Your task to perform on an android device: Open Maps and search for coffee Image 0: 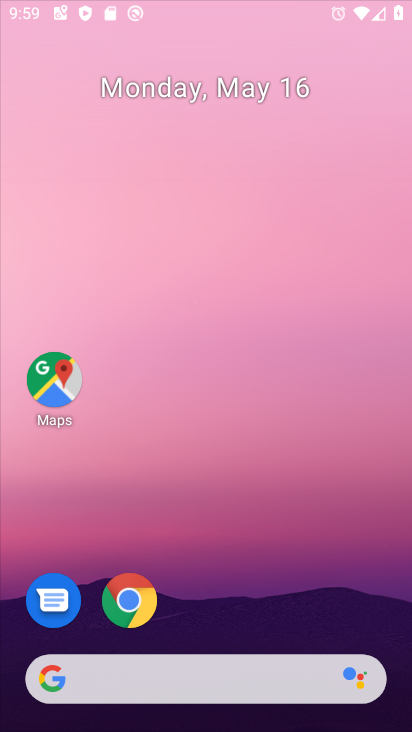
Step 0: click (352, 103)
Your task to perform on an android device: Open Maps and search for coffee Image 1: 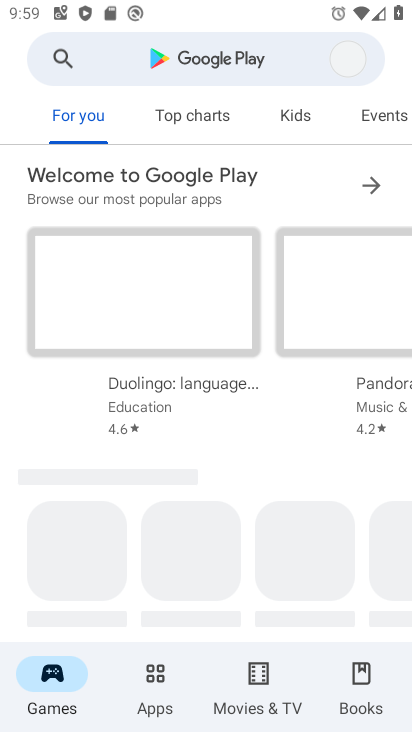
Step 1: drag from (201, 602) to (229, 111)
Your task to perform on an android device: Open Maps and search for coffee Image 2: 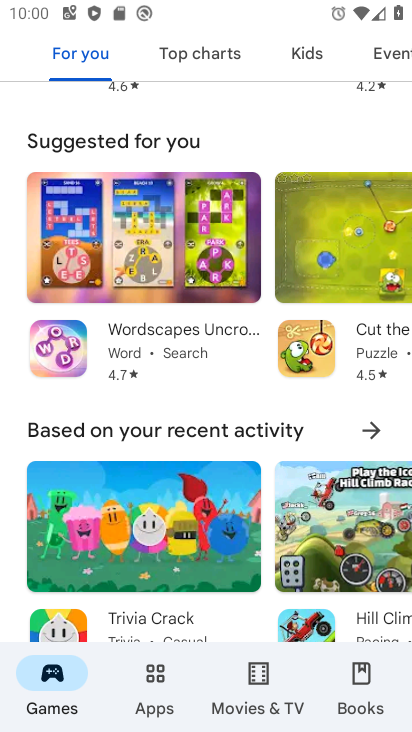
Step 2: press home button
Your task to perform on an android device: Open Maps and search for coffee Image 3: 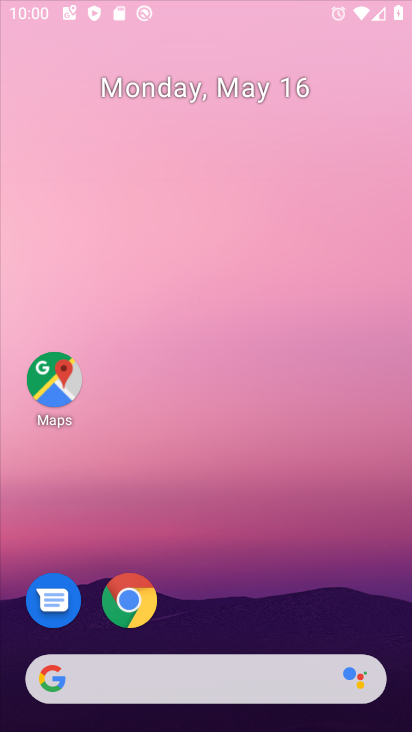
Step 3: drag from (217, 579) to (409, 63)
Your task to perform on an android device: Open Maps and search for coffee Image 4: 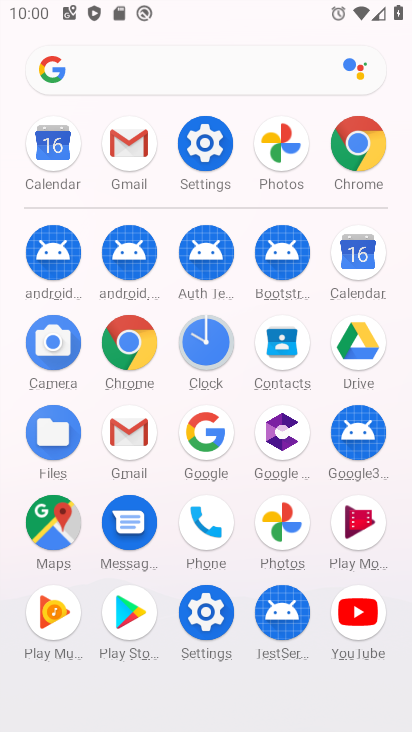
Step 4: click (53, 502)
Your task to perform on an android device: Open Maps and search for coffee Image 5: 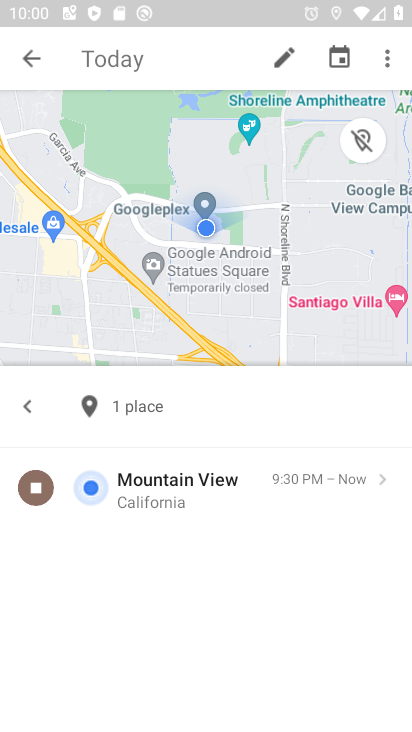
Step 5: drag from (224, 525) to (252, 268)
Your task to perform on an android device: Open Maps and search for coffee Image 6: 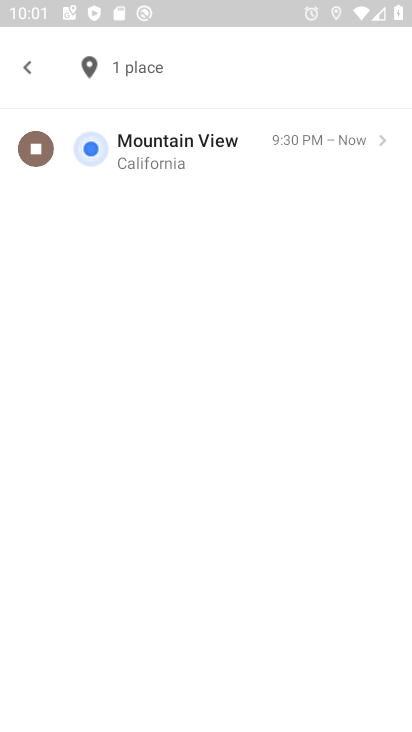
Step 6: click (12, 59)
Your task to perform on an android device: Open Maps and search for coffee Image 7: 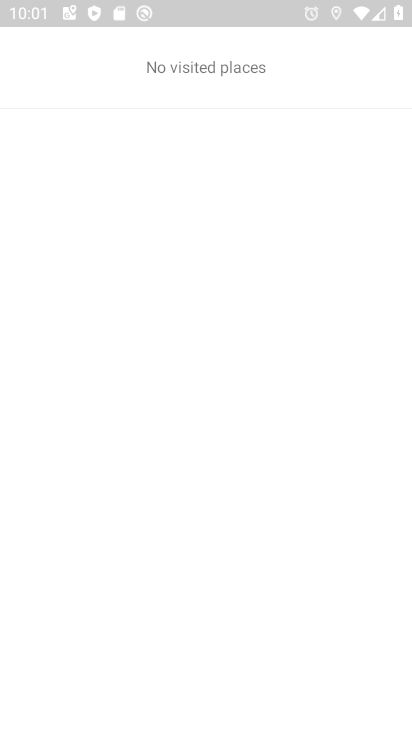
Step 7: drag from (186, 394) to (317, 171)
Your task to perform on an android device: Open Maps and search for coffee Image 8: 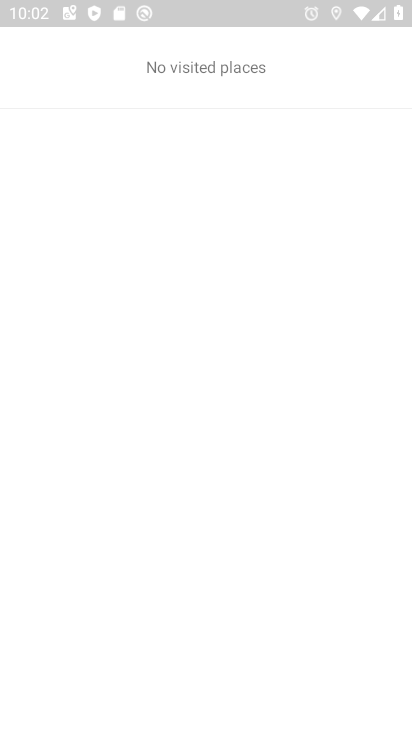
Step 8: drag from (257, 474) to (262, 89)
Your task to perform on an android device: Open Maps and search for coffee Image 9: 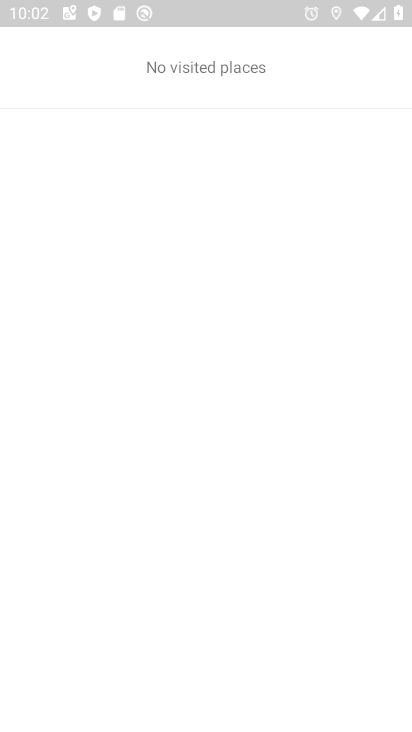
Step 9: click (258, 46)
Your task to perform on an android device: Open Maps and search for coffee Image 10: 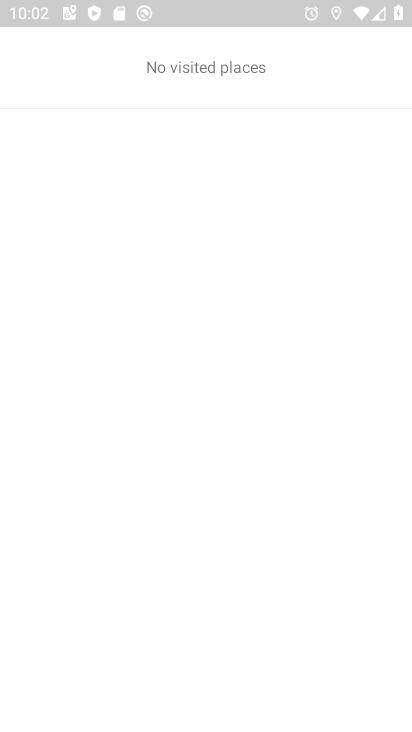
Step 10: click (258, 46)
Your task to perform on an android device: Open Maps and search for coffee Image 11: 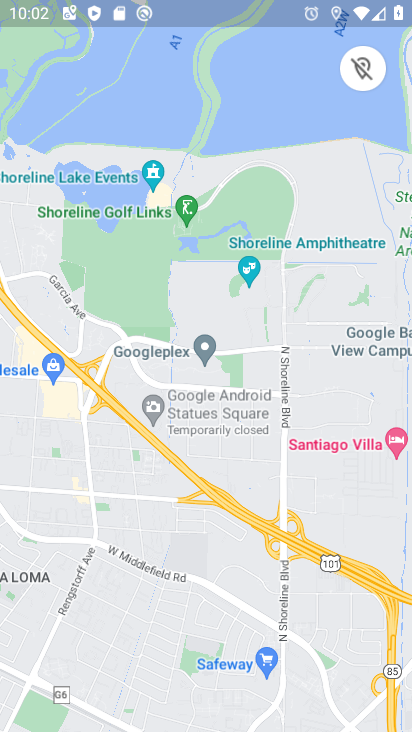
Step 11: drag from (234, 425) to (263, 40)
Your task to perform on an android device: Open Maps and search for coffee Image 12: 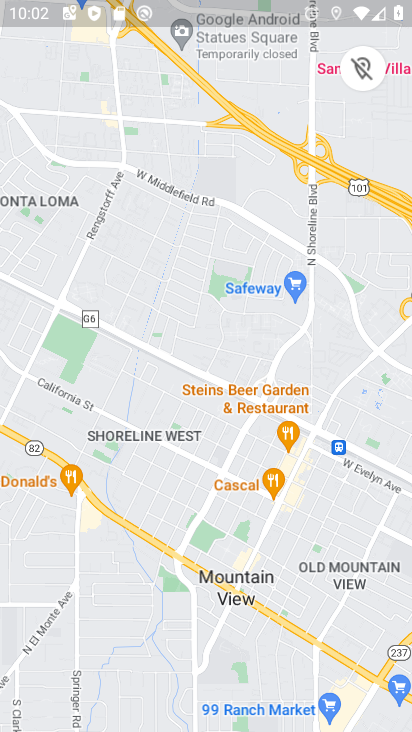
Step 12: drag from (169, 224) to (320, 661)
Your task to perform on an android device: Open Maps and search for coffee Image 13: 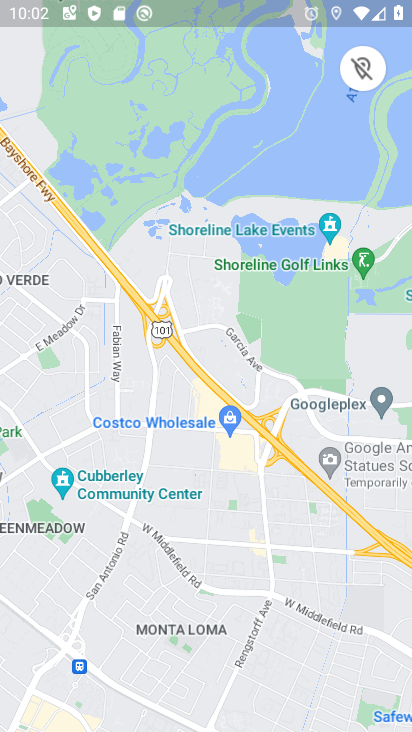
Step 13: press back button
Your task to perform on an android device: Open Maps and search for coffee Image 14: 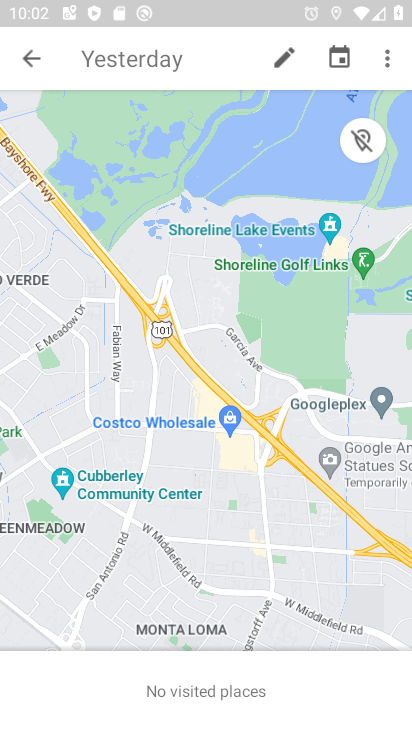
Step 14: press back button
Your task to perform on an android device: Open Maps and search for coffee Image 15: 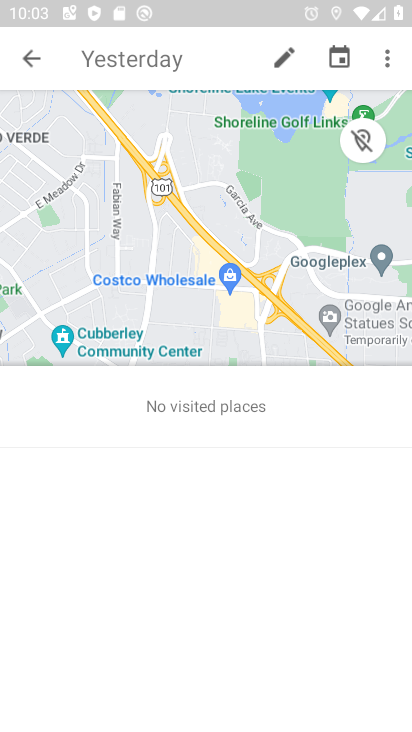
Step 15: drag from (260, 678) to (348, 359)
Your task to perform on an android device: Open Maps and search for coffee Image 16: 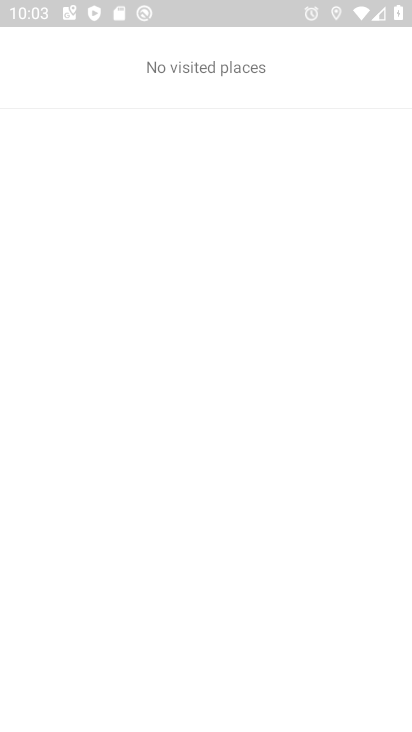
Step 16: click (37, 61)
Your task to perform on an android device: Open Maps and search for coffee Image 17: 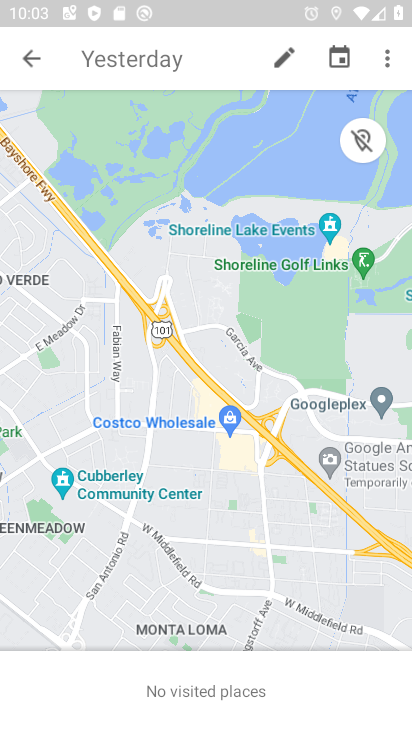
Step 17: click (28, 49)
Your task to perform on an android device: Open Maps and search for coffee Image 18: 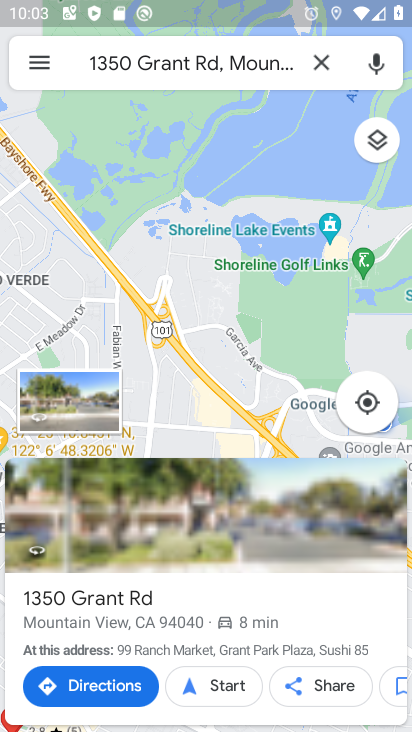
Step 18: click (322, 59)
Your task to perform on an android device: Open Maps and search for coffee Image 19: 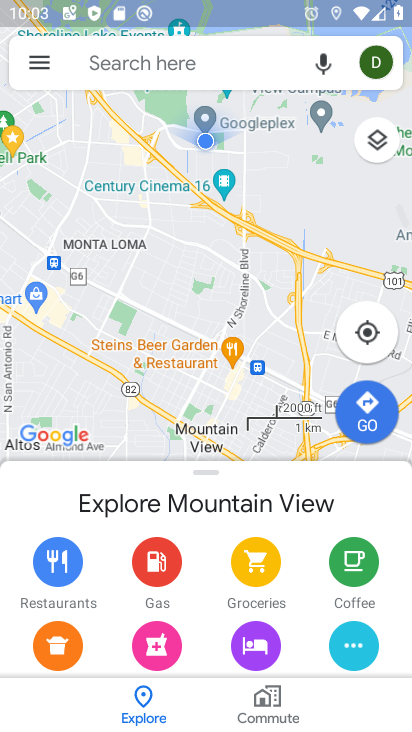
Step 19: click (186, 55)
Your task to perform on an android device: Open Maps and search for coffee Image 20: 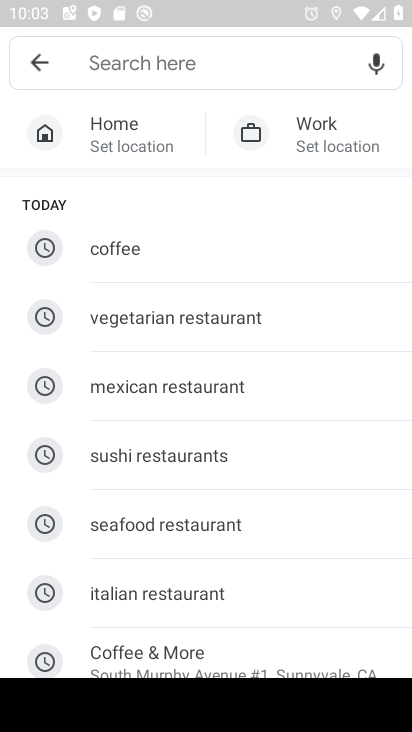
Step 20: click (189, 233)
Your task to perform on an android device: Open Maps and search for coffee Image 21: 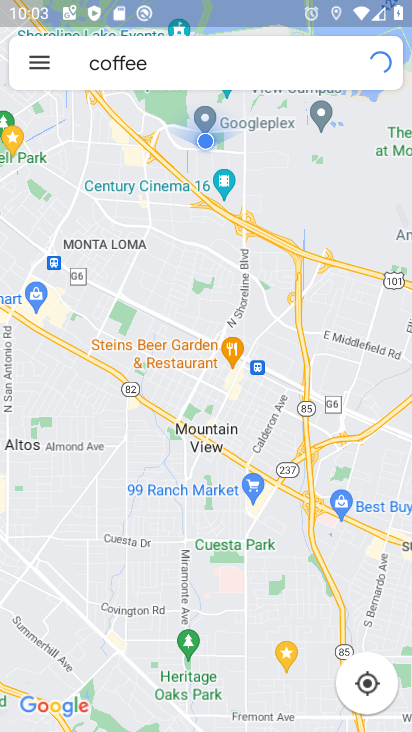
Step 21: task complete